Your task to perform on an android device: Go to location settings Image 0: 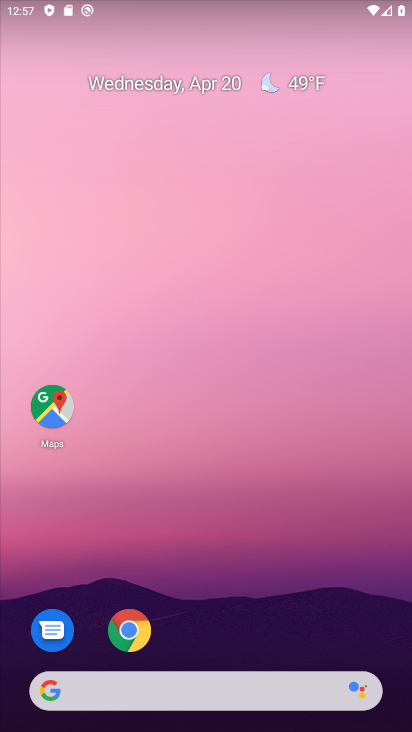
Step 0: drag from (240, 642) to (240, 173)
Your task to perform on an android device: Go to location settings Image 1: 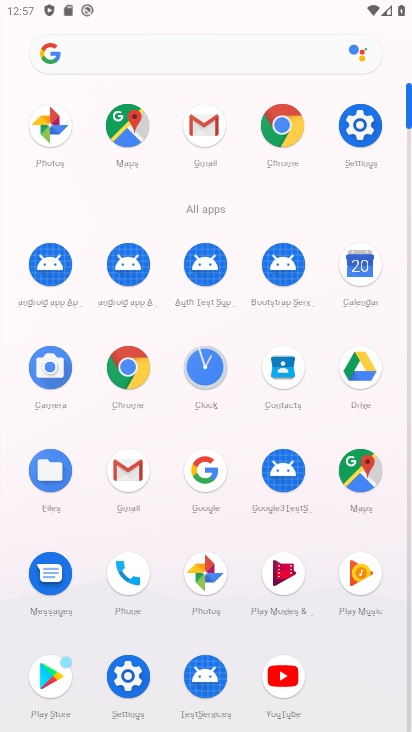
Step 1: click (354, 139)
Your task to perform on an android device: Go to location settings Image 2: 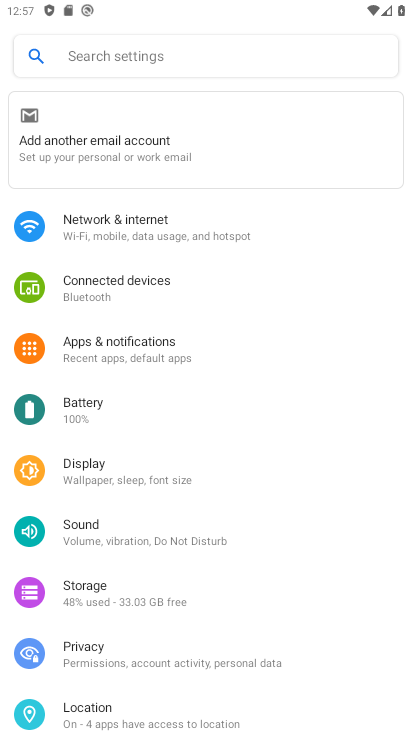
Step 2: click (125, 717)
Your task to perform on an android device: Go to location settings Image 3: 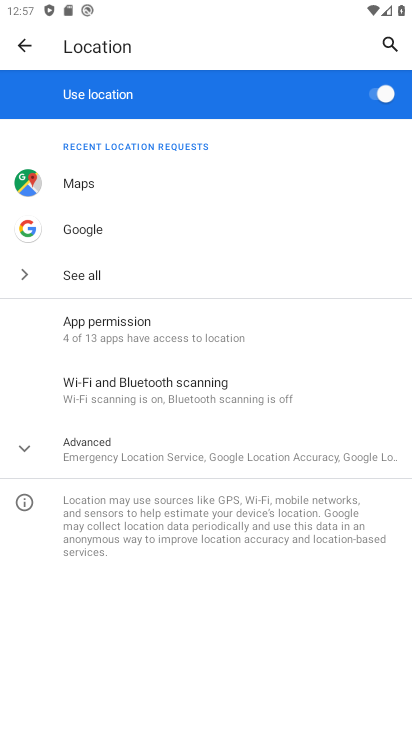
Step 3: task complete